Your task to perform on an android device: turn on javascript in the chrome app Image 0: 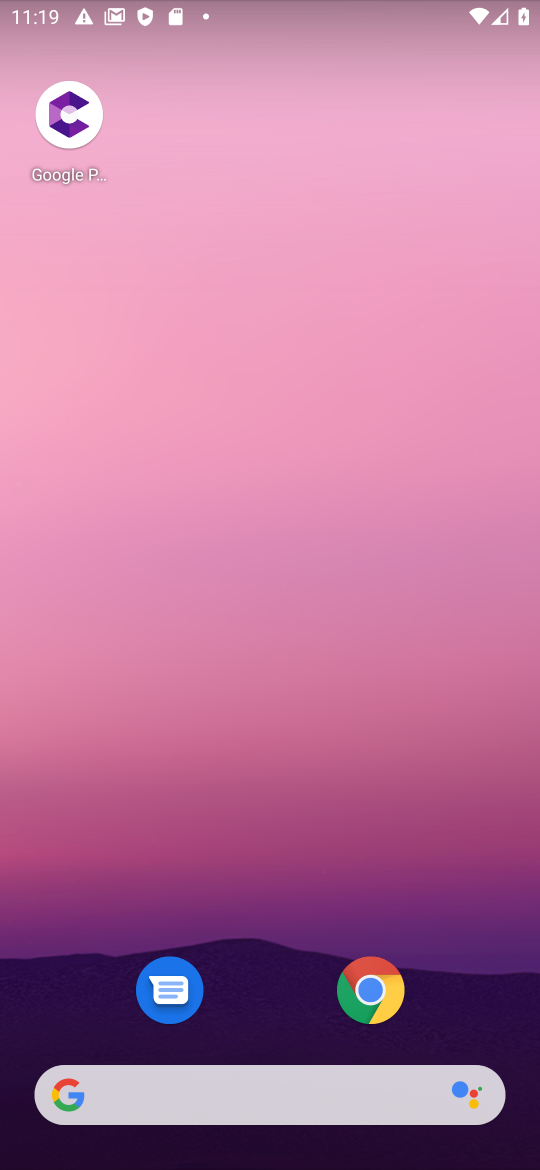
Step 0: drag from (286, 1017) to (405, 84)
Your task to perform on an android device: turn on javascript in the chrome app Image 1: 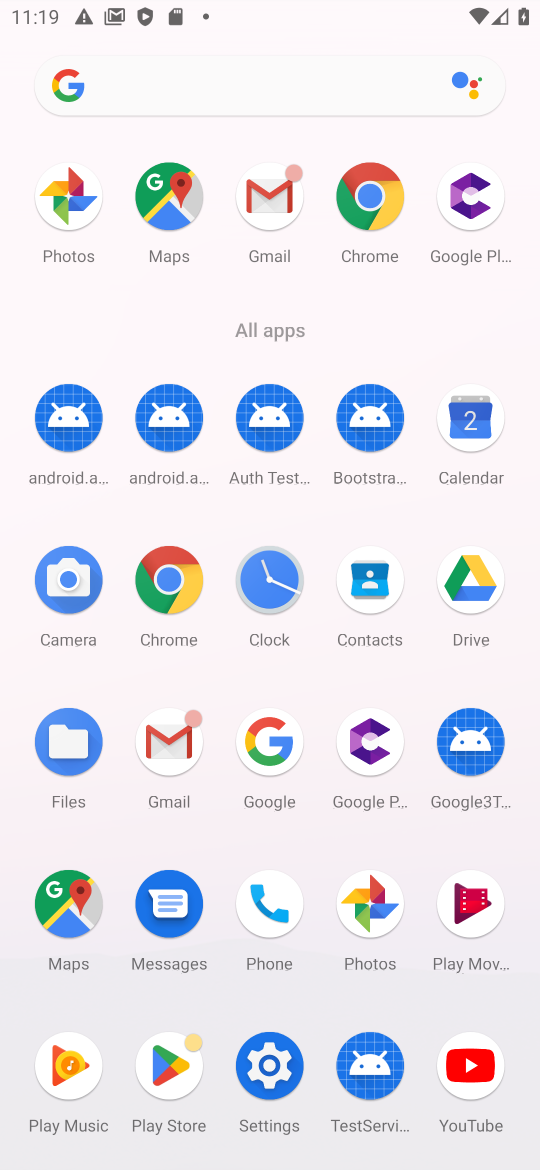
Step 1: click (186, 581)
Your task to perform on an android device: turn on javascript in the chrome app Image 2: 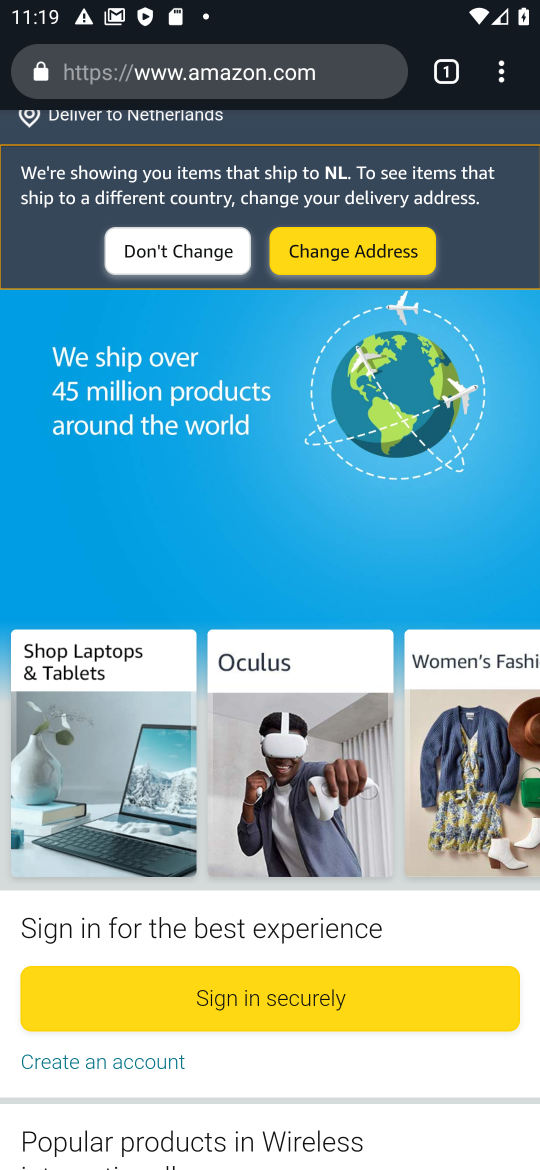
Step 2: drag from (421, 186) to (412, 900)
Your task to perform on an android device: turn on javascript in the chrome app Image 3: 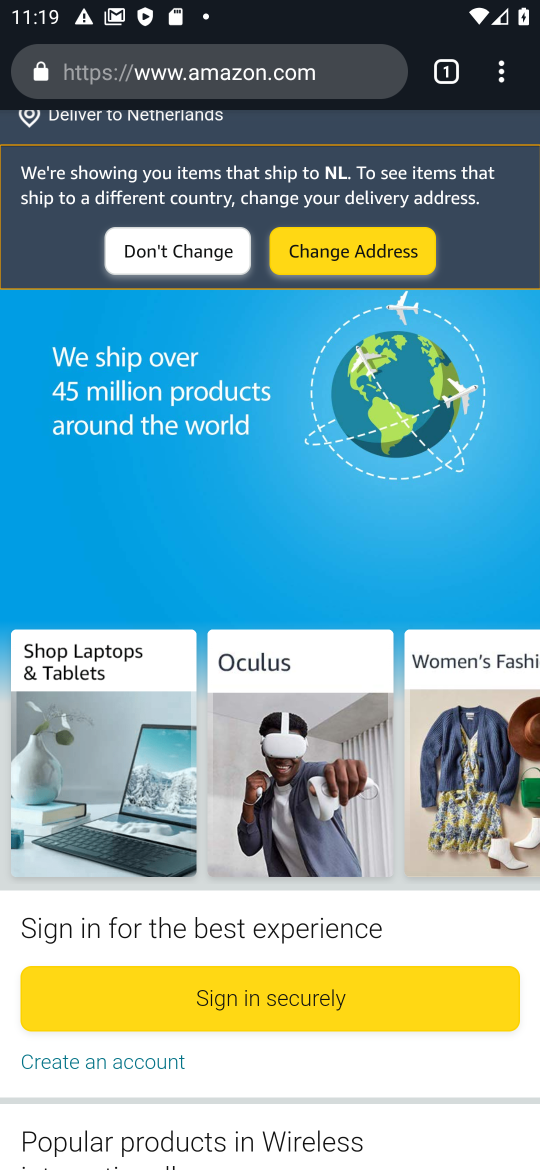
Step 3: click (504, 68)
Your task to perform on an android device: turn on javascript in the chrome app Image 4: 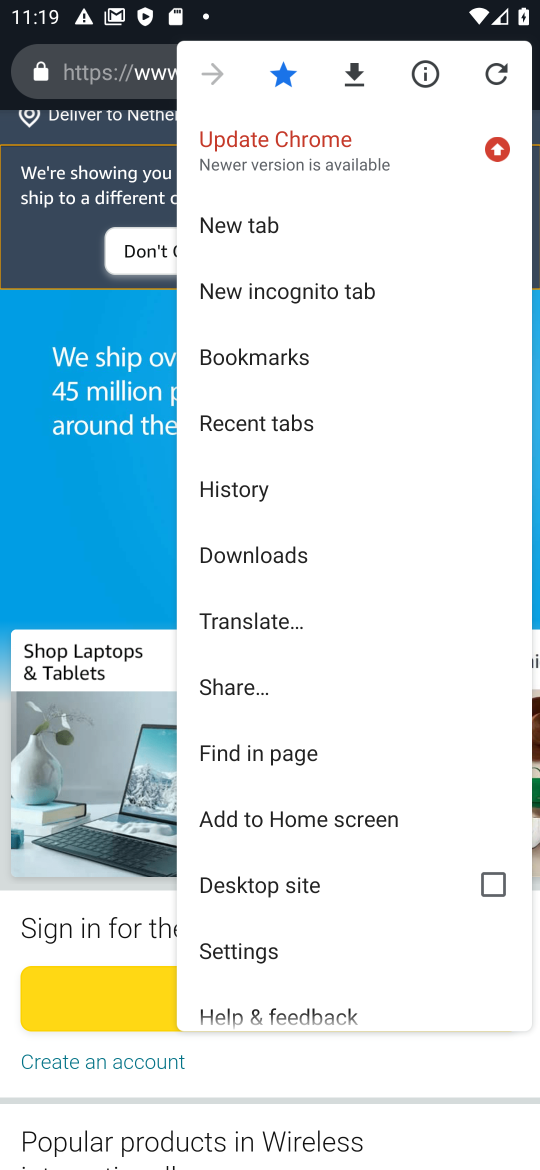
Step 4: click (249, 951)
Your task to perform on an android device: turn on javascript in the chrome app Image 5: 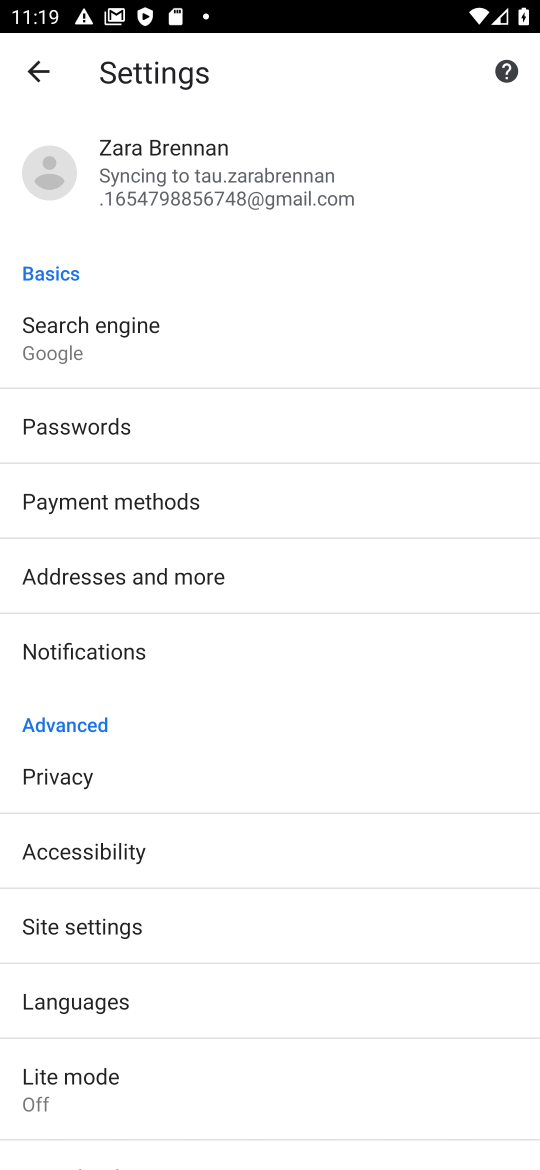
Step 5: click (102, 931)
Your task to perform on an android device: turn on javascript in the chrome app Image 6: 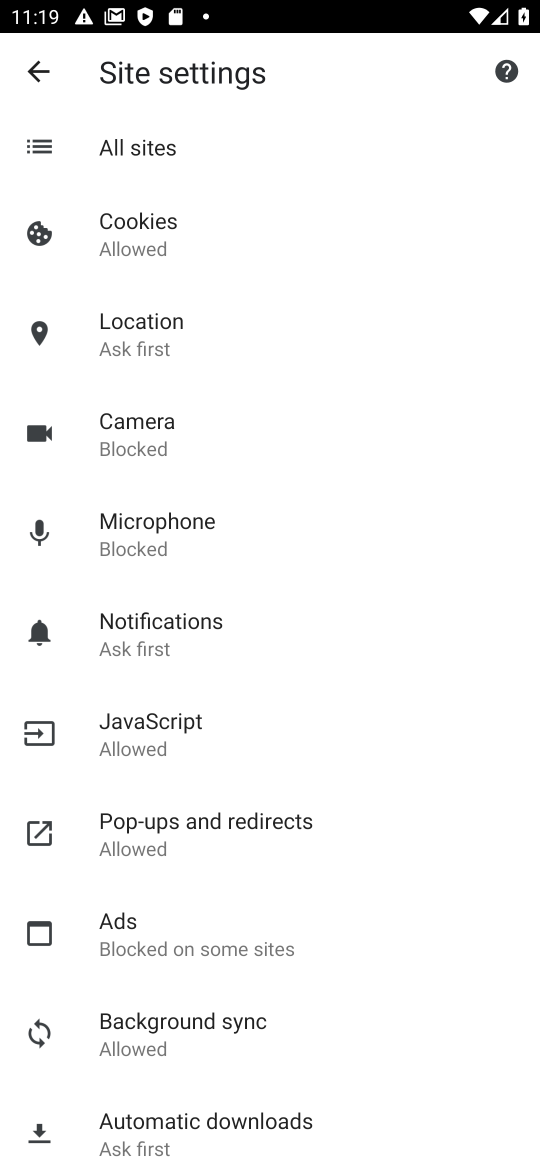
Step 6: click (188, 750)
Your task to perform on an android device: turn on javascript in the chrome app Image 7: 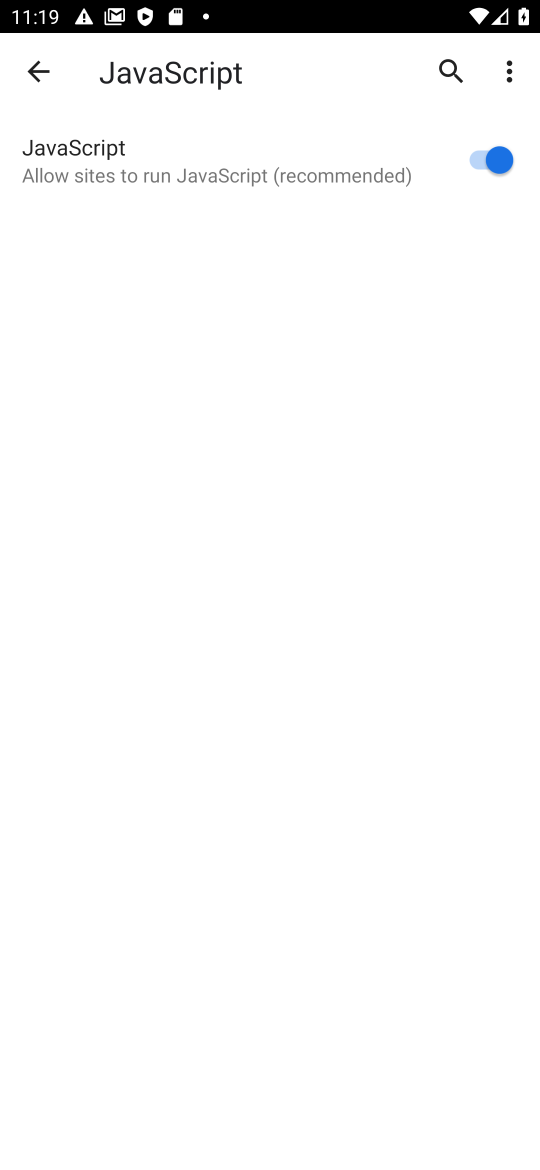
Step 7: task complete